Your task to perform on an android device: change the clock style Image 0: 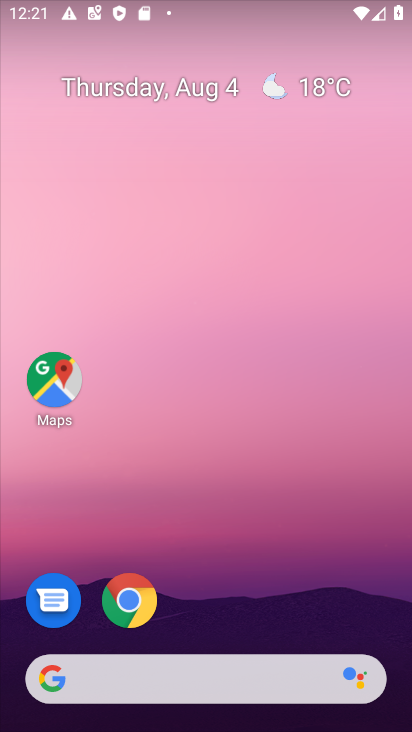
Step 0: drag from (117, 659) to (315, 101)
Your task to perform on an android device: change the clock style Image 1: 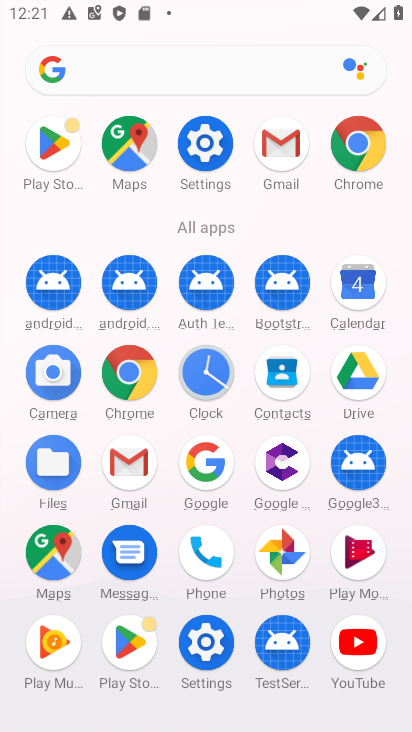
Step 1: click (210, 378)
Your task to perform on an android device: change the clock style Image 2: 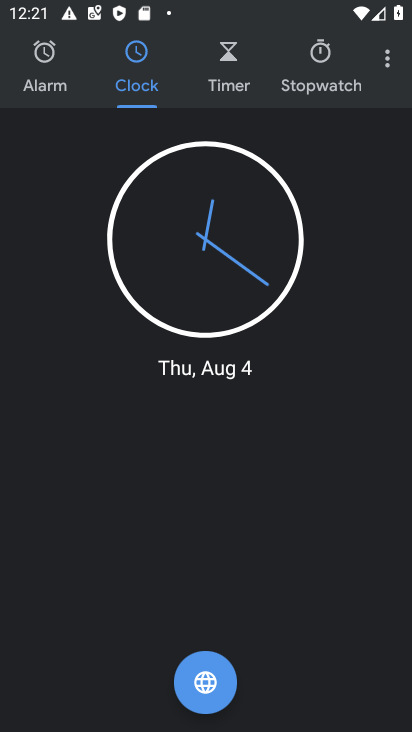
Step 2: click (382, 62)
Your task to perform on an android device: change the clock style Image 3: 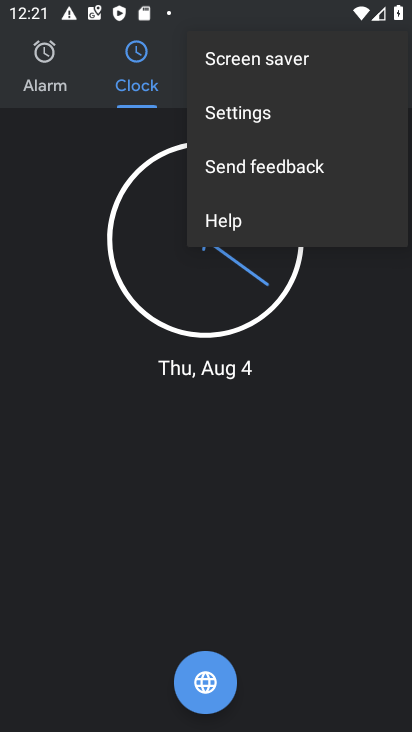
Step 3: click (258, 108)
Your task to perform on an android device: change the clock style Image 4: 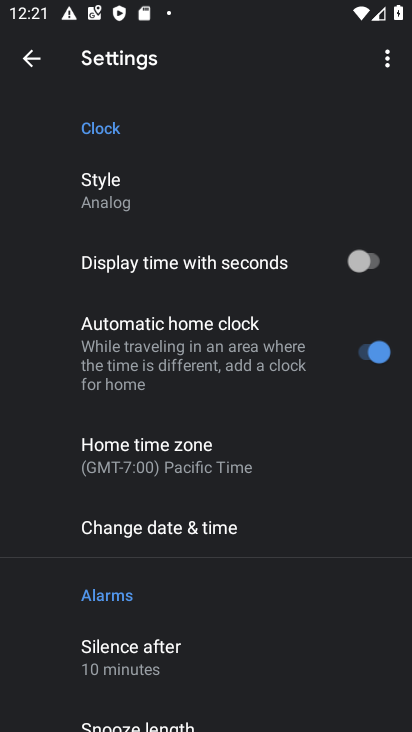
Step 4: click (99, 192)
Your task to perform on an android device: change the clock style Image 5: 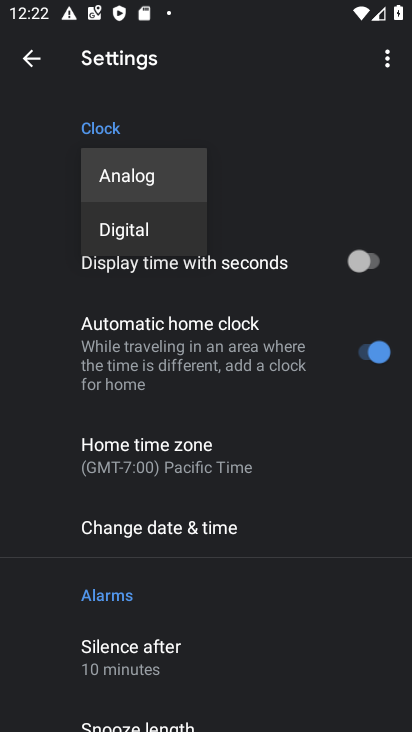
Step 5: click (135, 239)
Your task to perform on an android device: change the clock style Image 6: 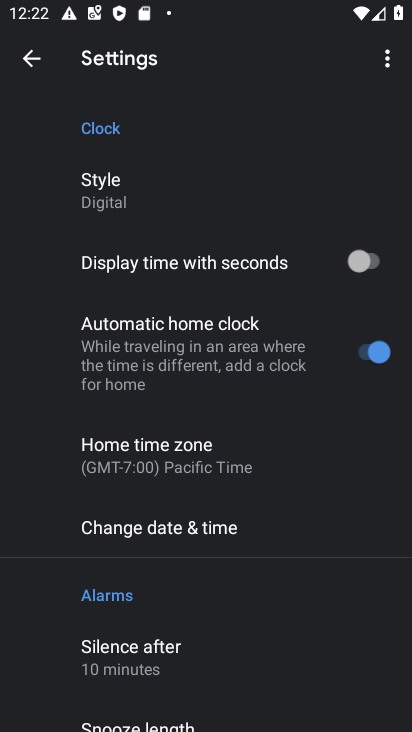
Step 6: task complete